Your task to perform on an android device: open app "Google Duo" Image 0: 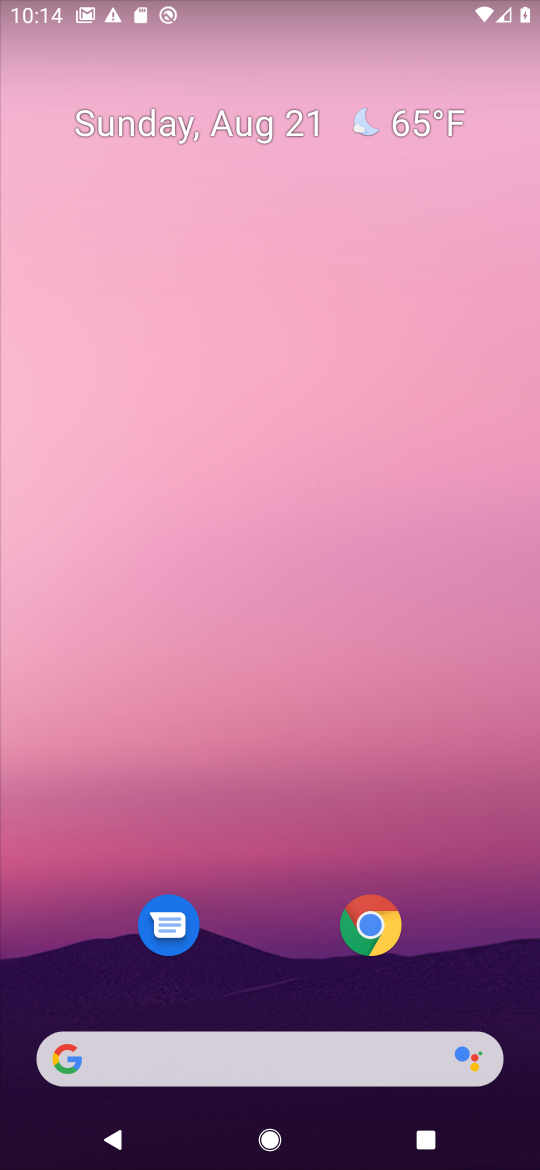
Step 0: drag from (303, 958) to (419, 81)
Your task to perform on an android device: open app "Google Duo" Image 1: 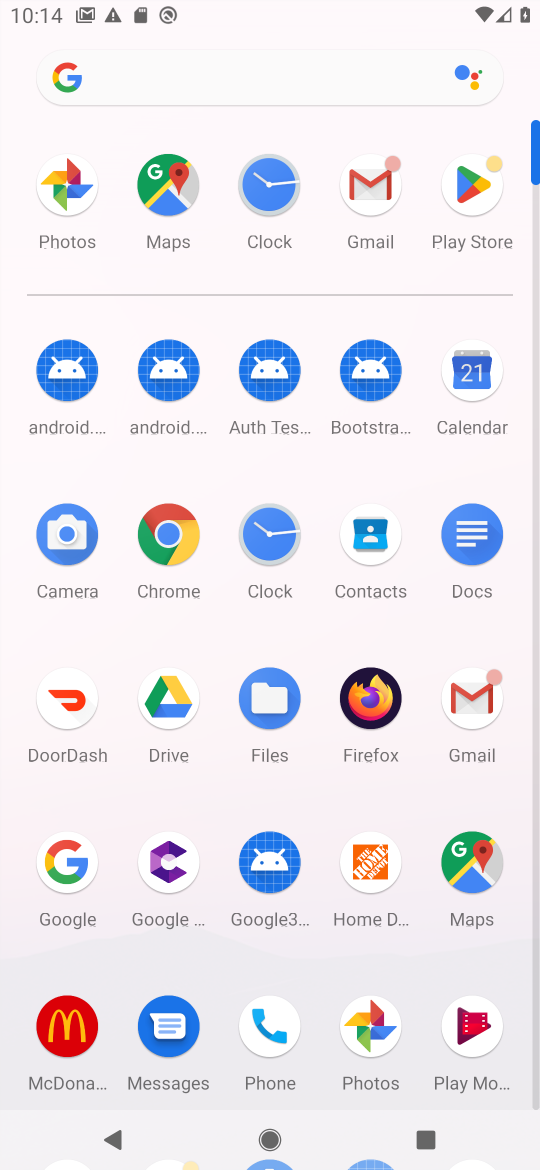
Step 1: click (484, 178)
Your task to perform on an android device: open app "Google Duo" Image 2: 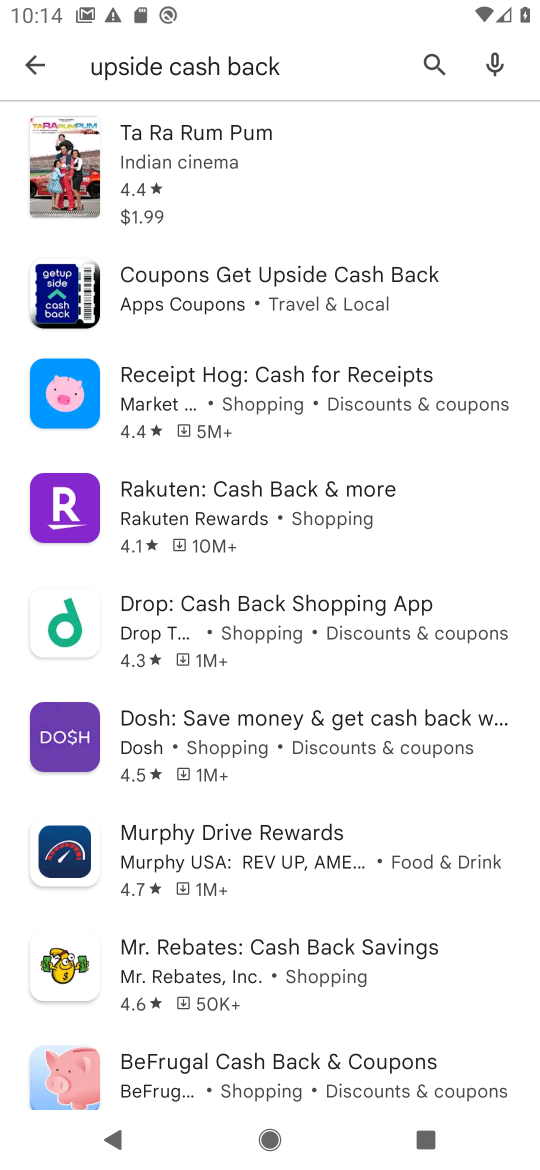
Step 2: click (436, 58)
Your task to perform on an android device: open app "Google Duo" Image 3: 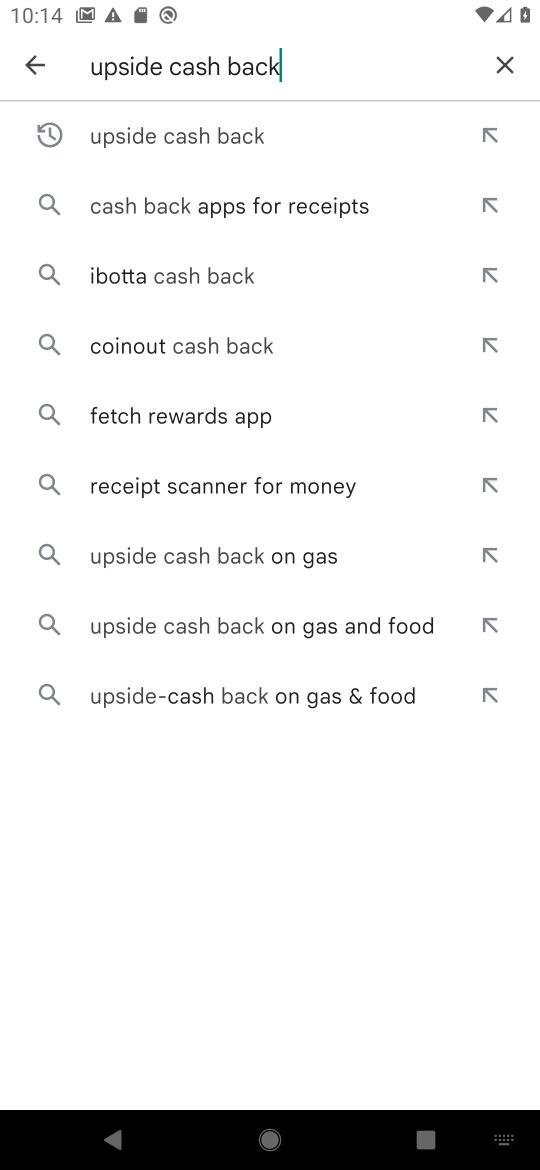
Step 3: click (503, 57)
Your task to perform on an android device: open app "Google Duo" Image 4: 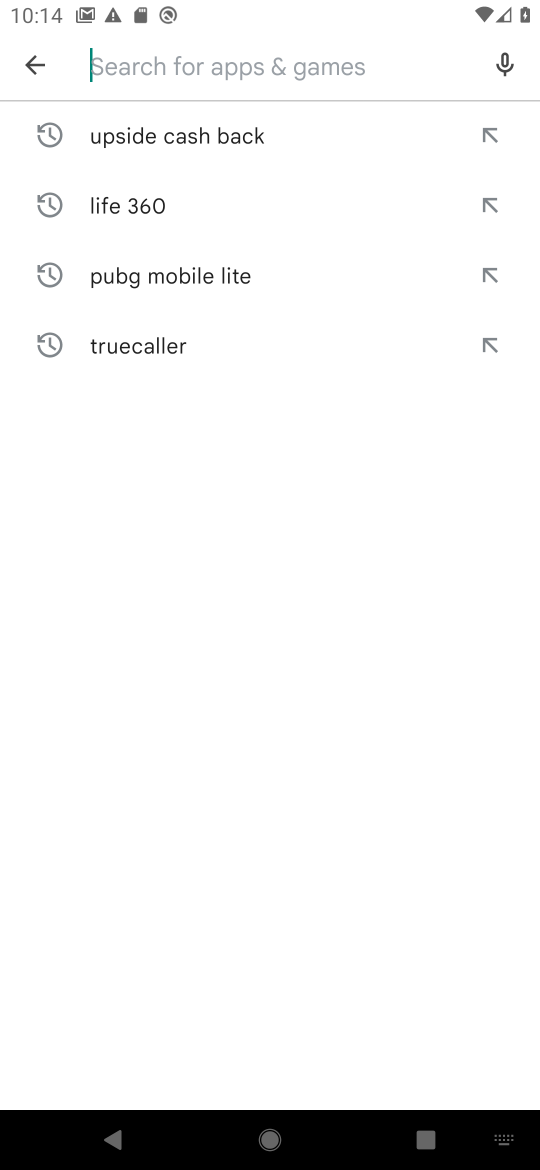
Step 4: click (324, 56)
Your task to perform on an android device: open app "Google Duo" Image 5: 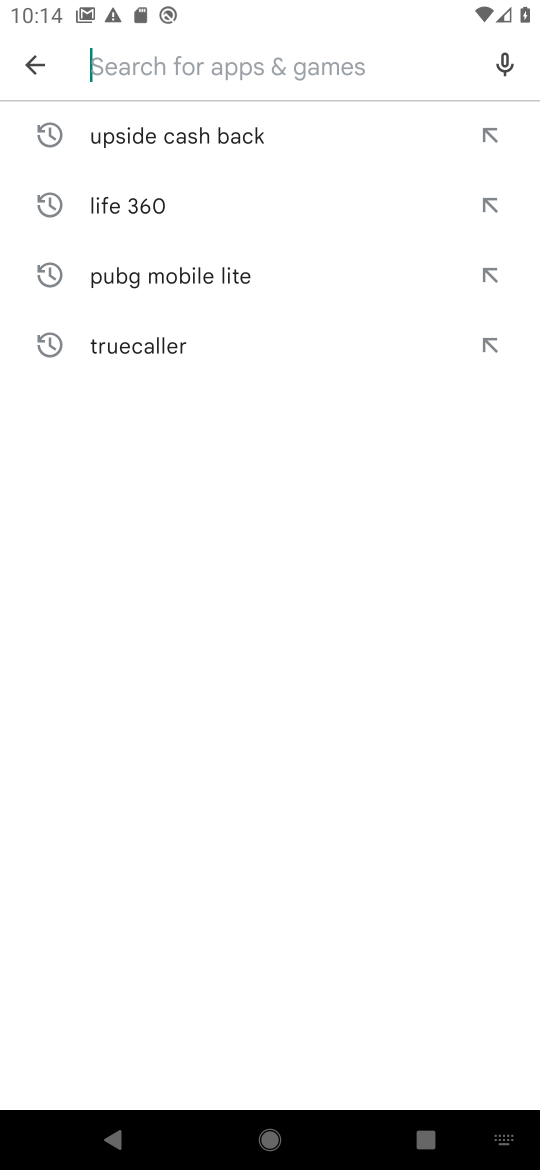
Step 5: type "goggle duo"
Your task to perform on an android device: open app "Google Duo" Image 6: 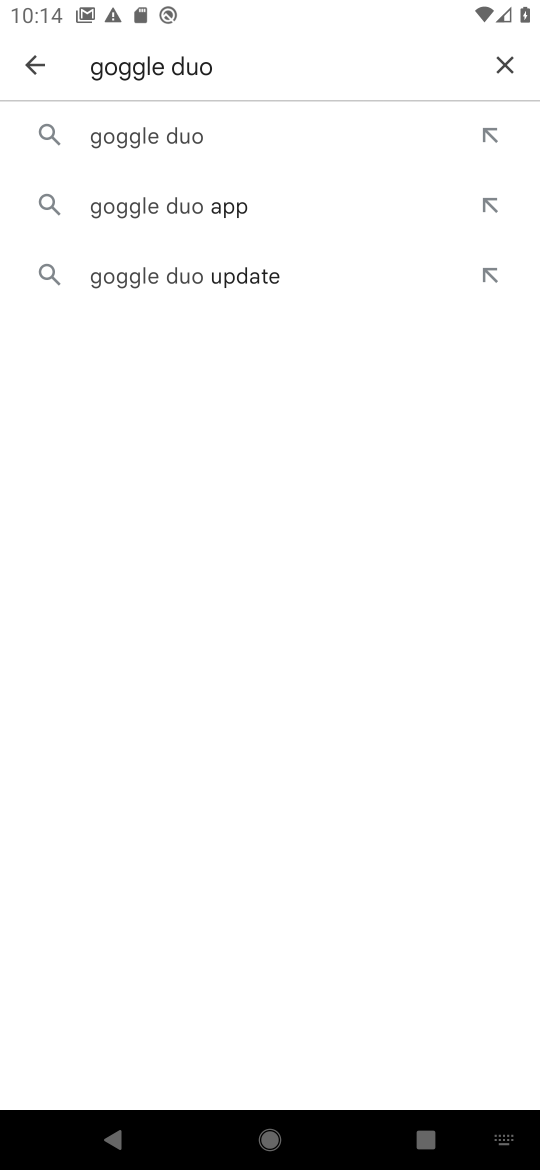
Step 6: click (132, 145)
Your task to perform on an android device: open app "Google Duo" Image 7: 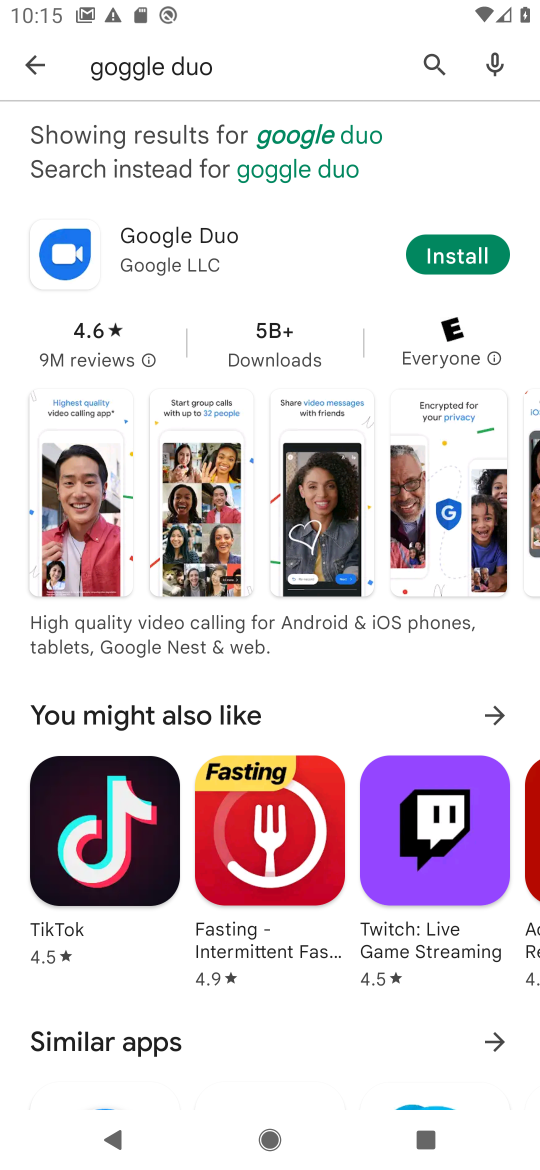
Step 7: task complete